Your task to perform on an android device: turn off airplane mode Image 0: 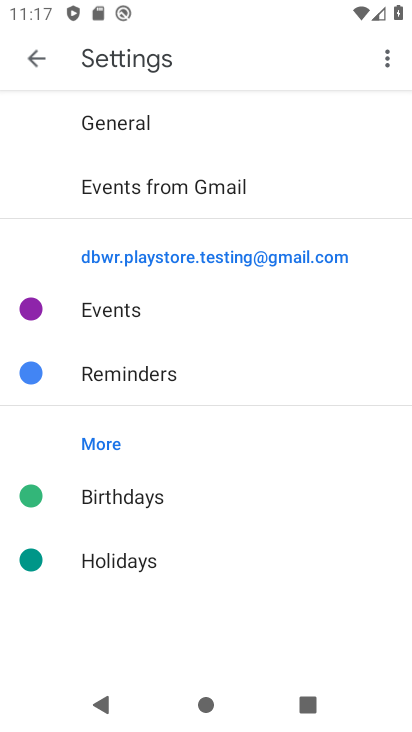
Step 0: press back button
Your task to perform on an android device: turn off airplane mode Image 1: 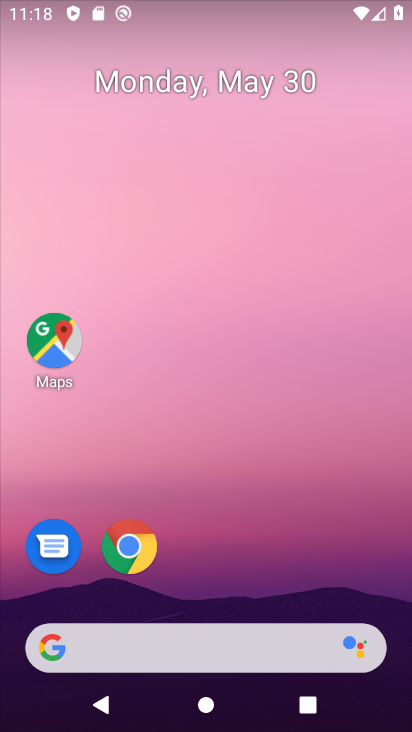
Step 1: drag from (265, 563) to (225, 137)
Your task to perform on an android device: turn off airplane mode Image 2: 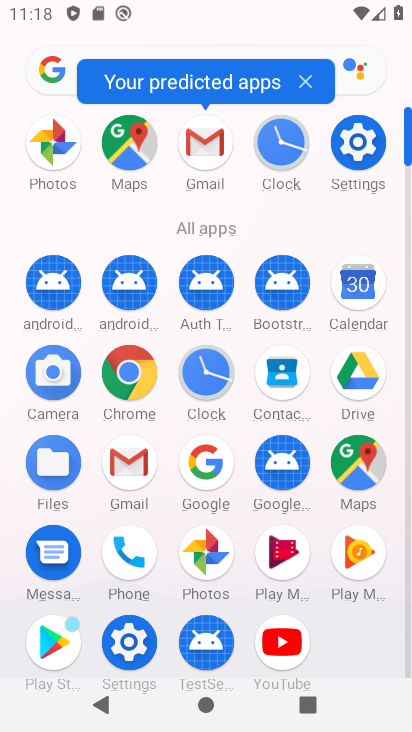
Step 2: click (357, 143)
Your task to perform on an android device: turn off airplane mode Image 3: 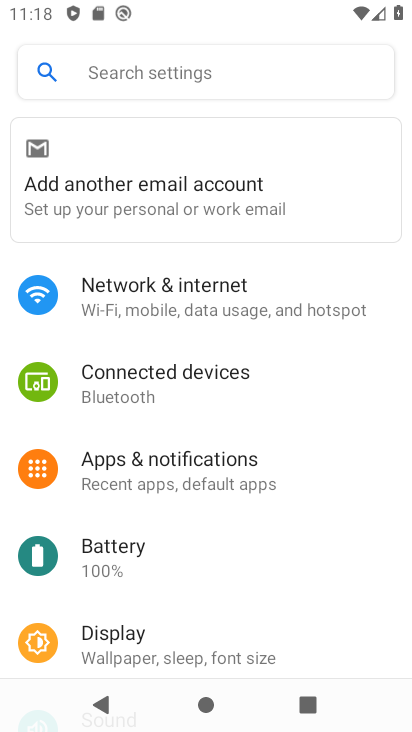
Step 3: click (148, 293)
Your task to perform on an android device: turn off airplane mode Image 4: 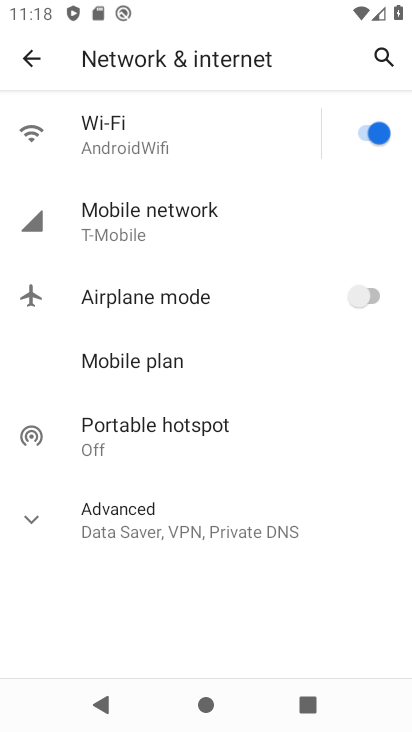
Step 4: task complete